Your task to perform on an android device: open a bookmark in the chrome app Image 0: 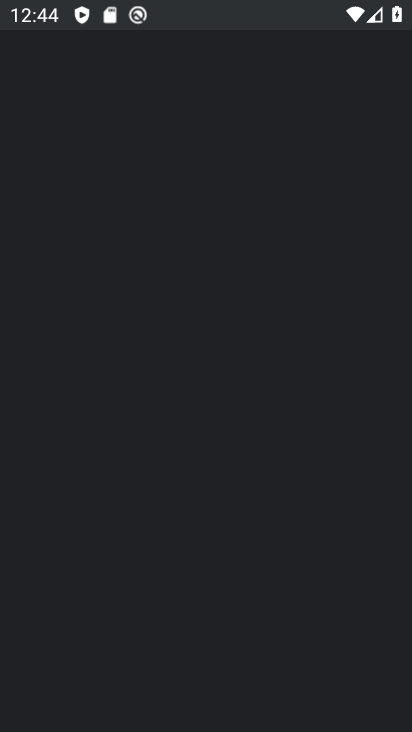
Step 0: drag from (151, 666) to (218, 236)
Your task to perform on an android device: open a bookmark in the chrome app Image 1: 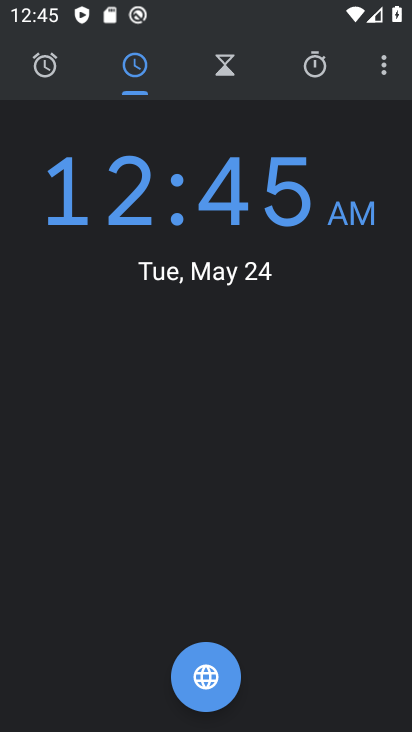
Step 1: press home button
Your task to perform on an android device: open a bookmark in the chrome app Image 2: 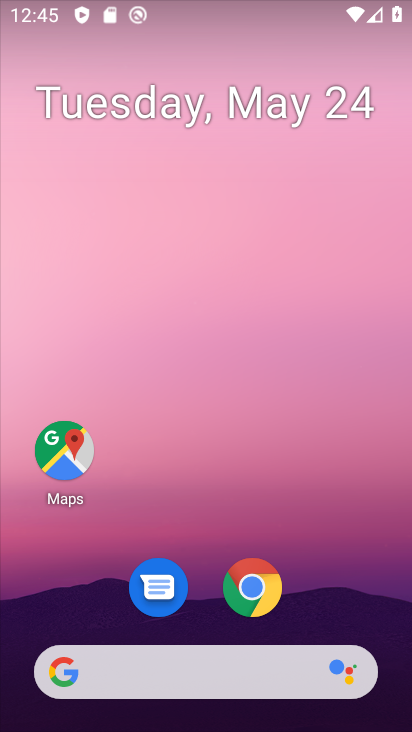
Step 2: click (269, 597)
Your task to perform on an android device: open a bookmark in the chrome app Image 3: 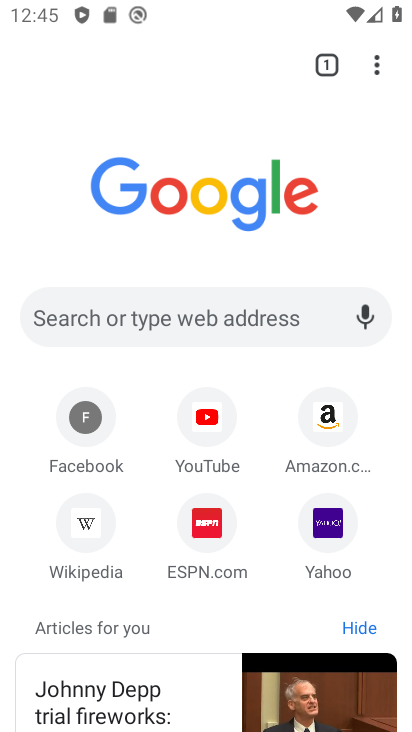
Step 3: task complete